Your task to perform on an android device: Go to privacy settings Image 0: 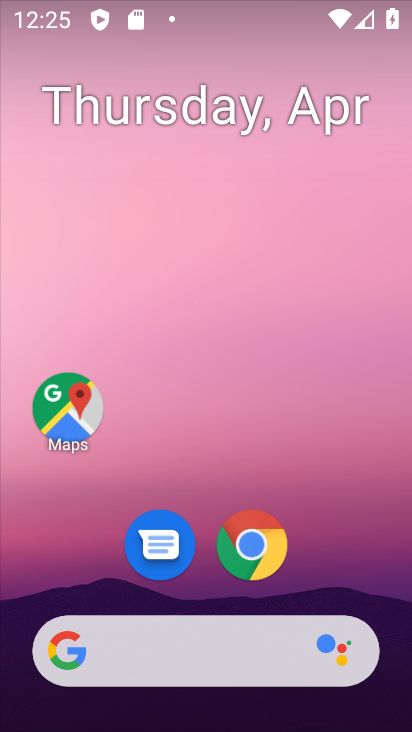
Step 0: drag from (310, 520) to (271, 126)
Your task to perform on an android device: Go to privacy settings Image 1: 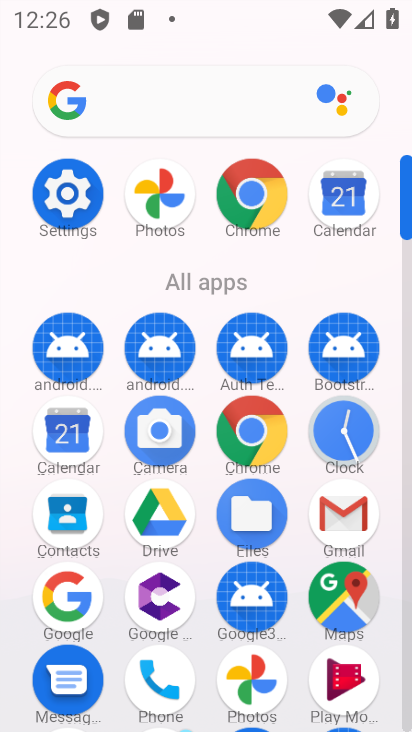
Step 1: click (57, 185)
Your task to perform on an android device: Go to privacy settings Image 2: 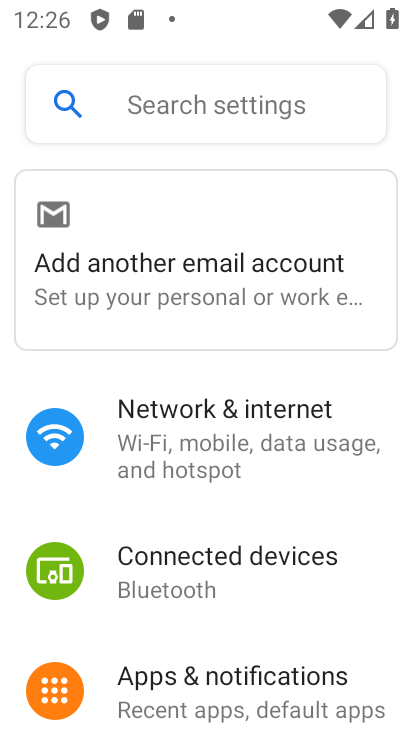
Step 2: drag from (255, 570) to (306, 150)
Your task to perform on an android device: Go to privacy settings Image 3: 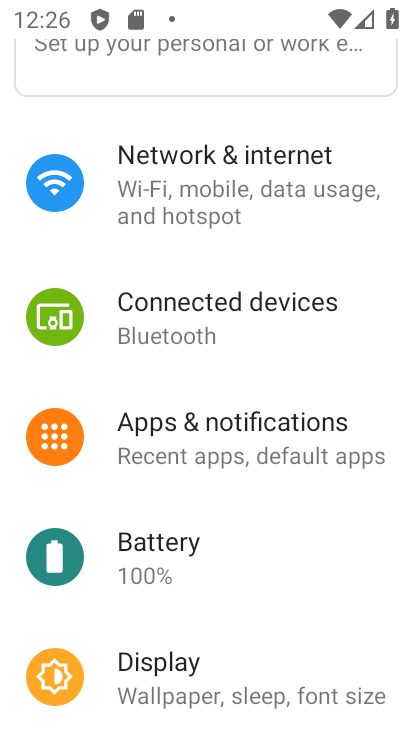
Step 3: drag from (211, 514) to (268, 216)
Your task to perform on an android device: Go to privacy settings Image 4: 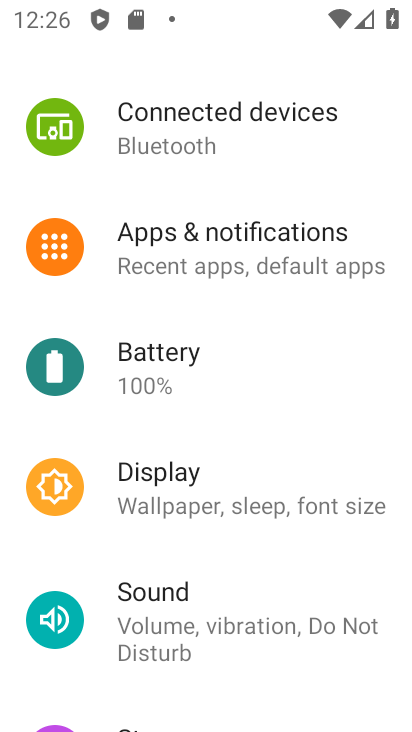
Step 4: drag from (231, 541) to (243, 274)
Your task to perform on an android device: Go to privacy settings Image 5: 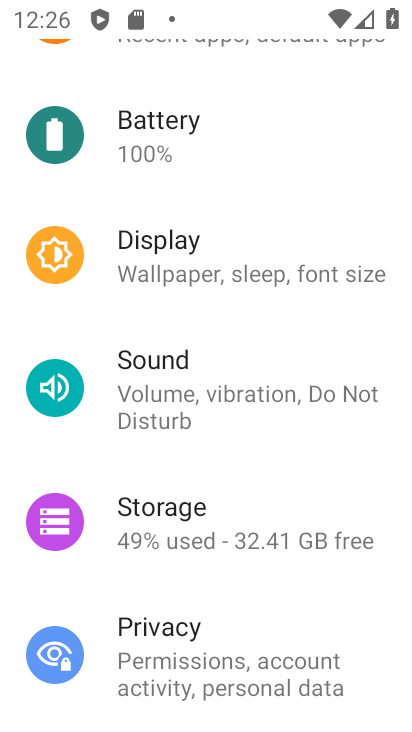
Step 5: click (169, 638)
Your task to perform on an android device: Go to privacy settings Image 6: 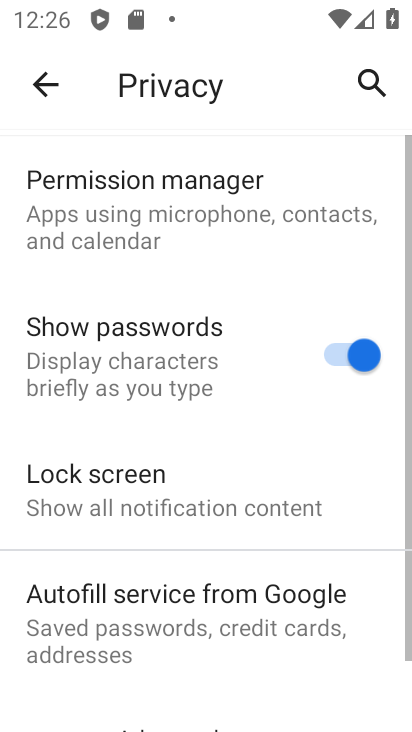
Step 6: task complete